Your task to perform on an android device: Do I have any events this weekend? Image 0: 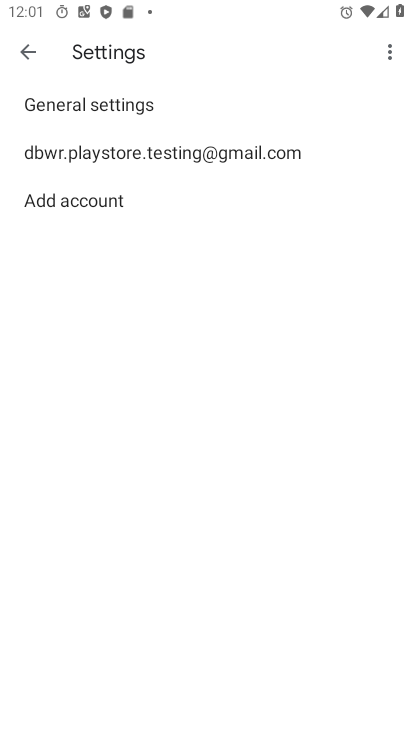
Step 0: press home button
Your task to perform on an android device: Do I have any events this weekend? Image 1: 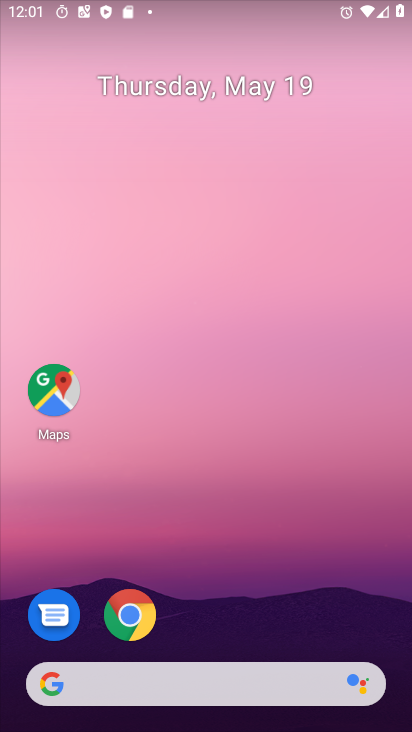
Step 1: drag from (50, 730) to (293, 90)
Your task to perform on an android device: Do I have any events this weekend? Image 2: 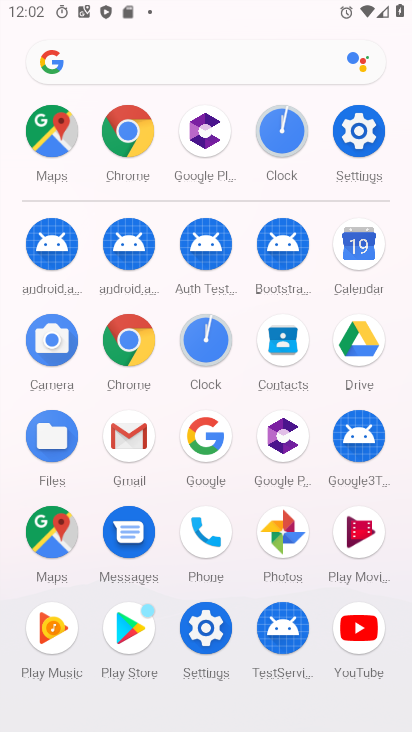
Step 2: press home button
Your task to perform on an android device: Do I have any events this weekend? Image 3: 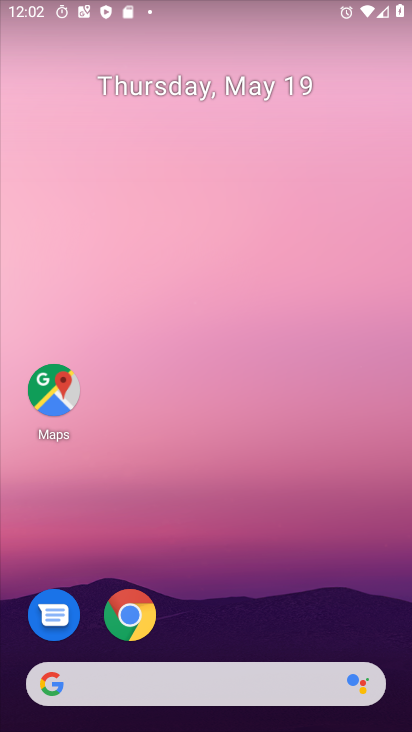
Step 3: click (139, 693)
Your task to perform on an android device: Do I have any events this weekend? Image 4: 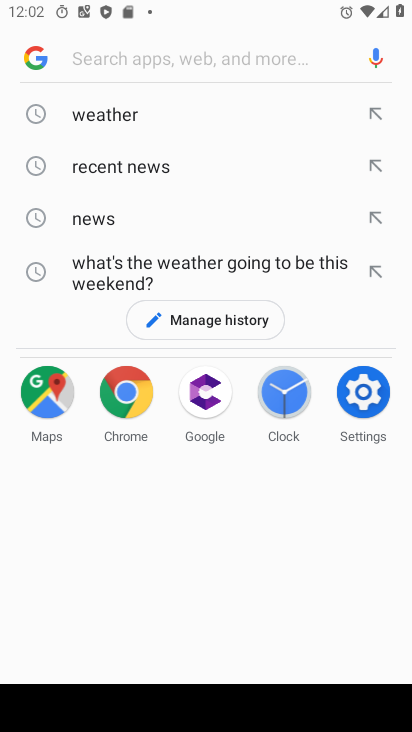
Step 4: click (120, 120)
Your task to perform on an android device: Do I have any events this weekend? Image 5: 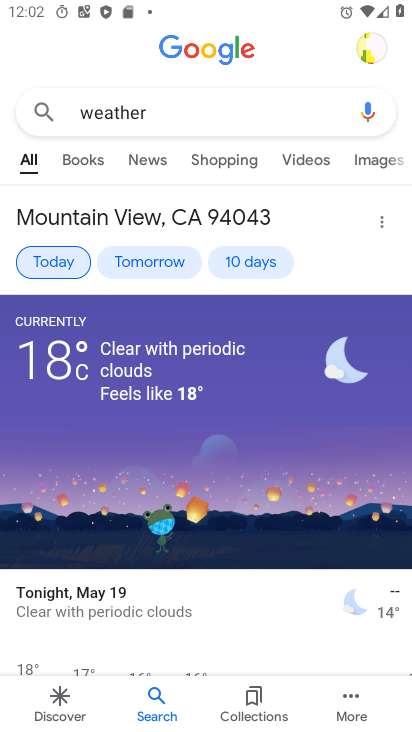
Step 5: task complete